Your task to perform on an android device: turn off notifications in google photos Image 0: 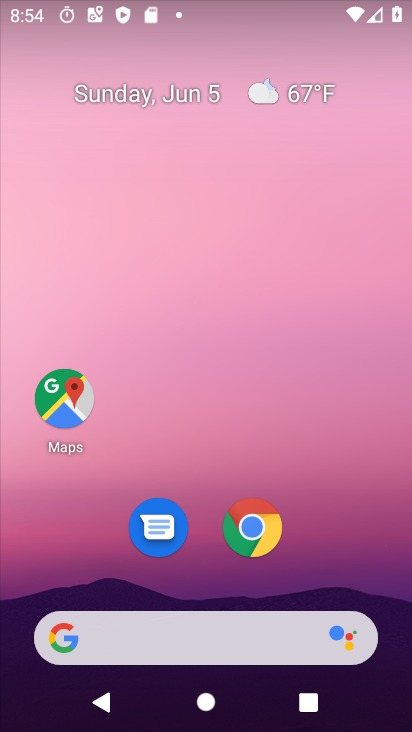
Step 0: drag from (229, 728) to (229, 57)
Your task to perform on an android device: turn off notifications in google photos Image 1: 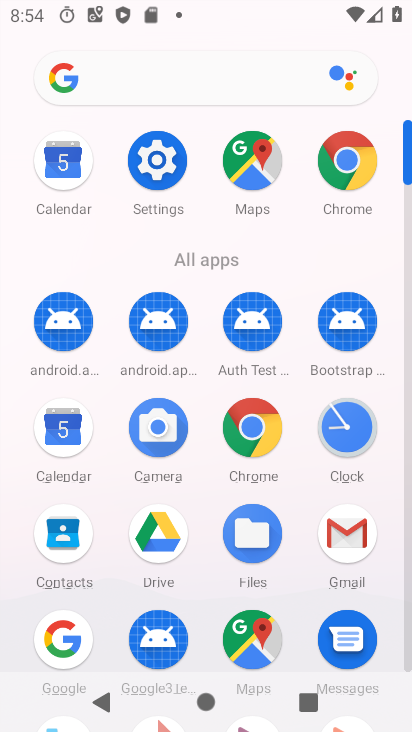
Step 1: drag from (218, 669) to (216, 217)
Your task to perform on an android device: turn off notifications in google photos Image 2: 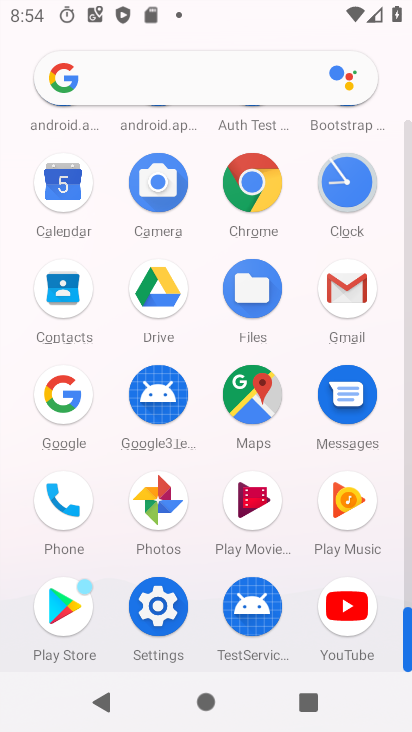
Step 2: click (164, 499)
Your task to perform on an android device: turn off notifications in google photos Image 3: 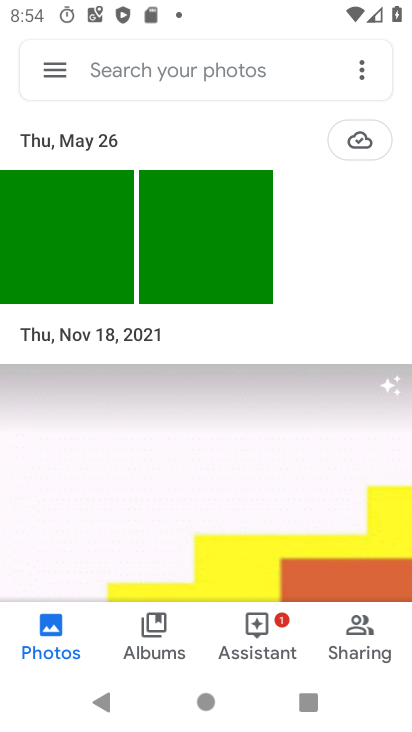
Step 3: click (55, 67)
Your task to perform on an android device: turn off notifications in google photos Image 4: 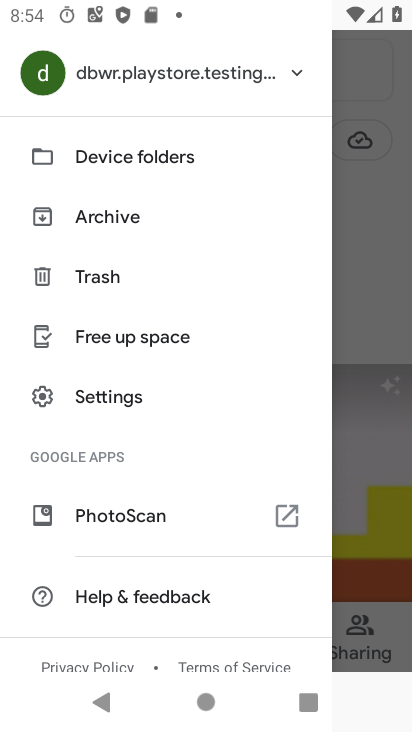
Step 4: click (111, 390)
Your task to perform on an android device: turn off notifications in google photos Image 5: 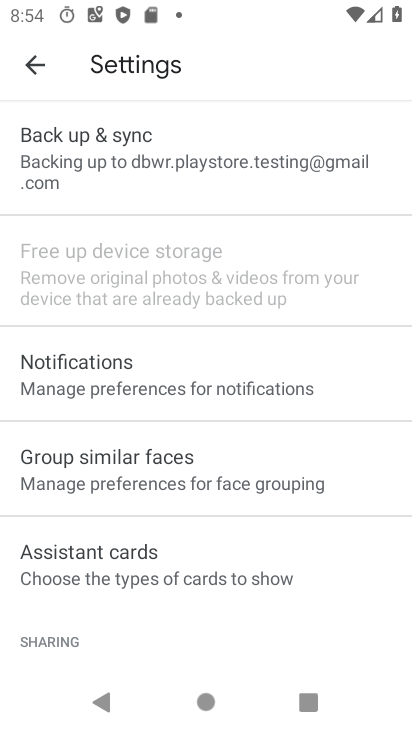
Step 5: click (80, 374)
Your task to perform on an android device: turn off notifications in google photos Image 6: 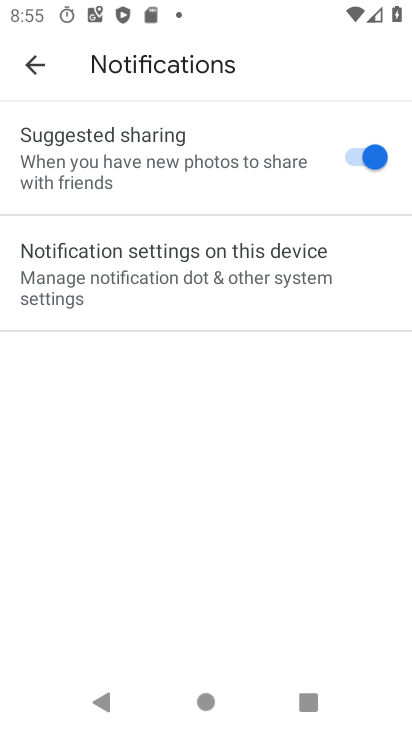
Step 6: click (102, 273)
Your task to perform on an android device: turn off notifications in google photos Image 7: 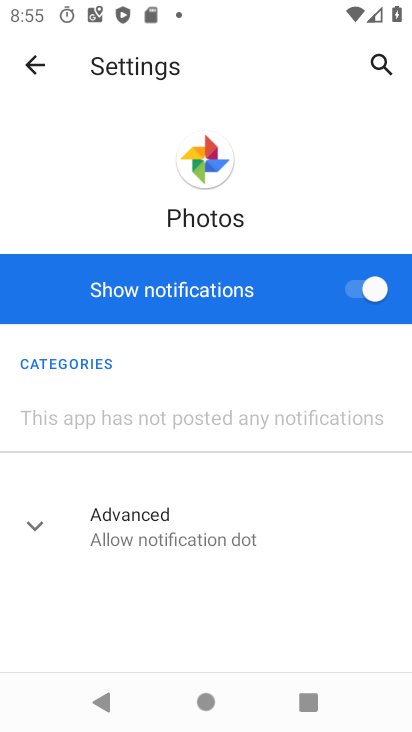
Step 7: click (352, 290)
Your task to perform on an android device: turn off notifications in google photos Image 8: 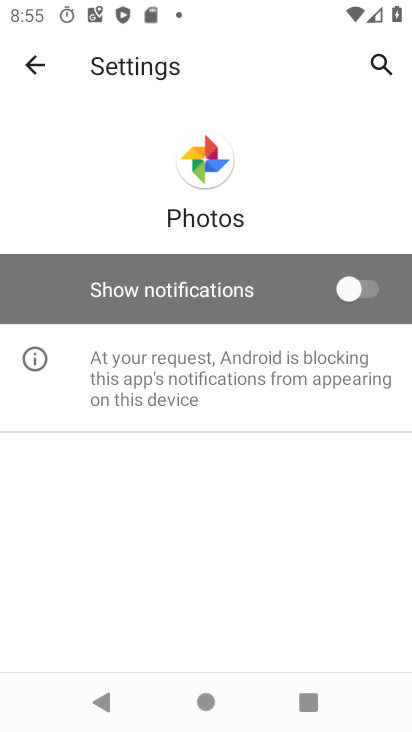
Step 8: task complete